Your task to perform on an android device: Search for Mexican restaurants on Maps Image 0: 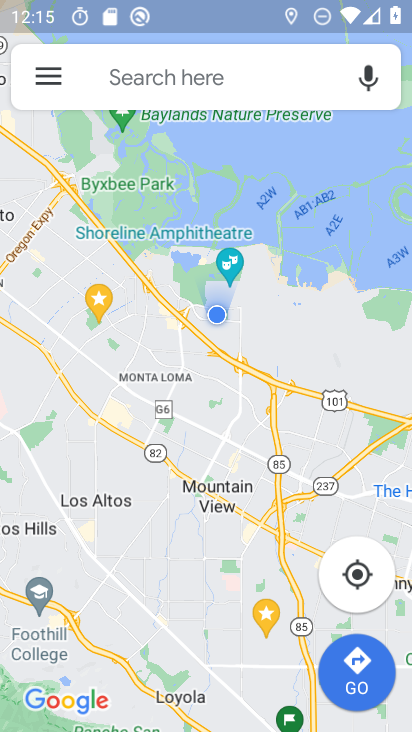
Step 0: press back button
Your task to perform on an android device: Search for Mexican restaurants on Maps Image 1: 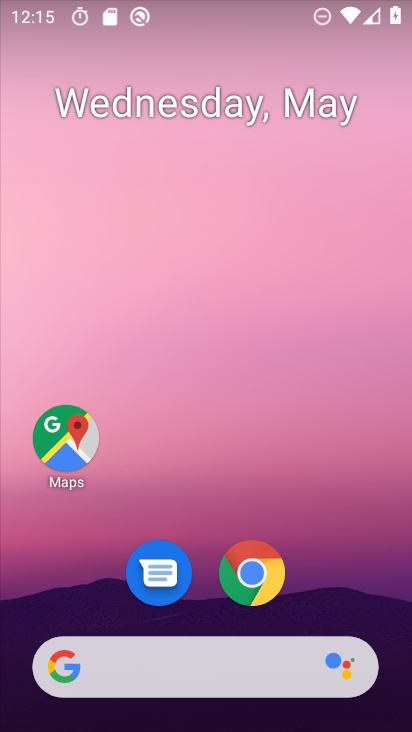
Step 1: drag from (328, 563) to (270, 32)
Your task to perform on an android device: Search for Mexican restaurants on Maps Image 2: 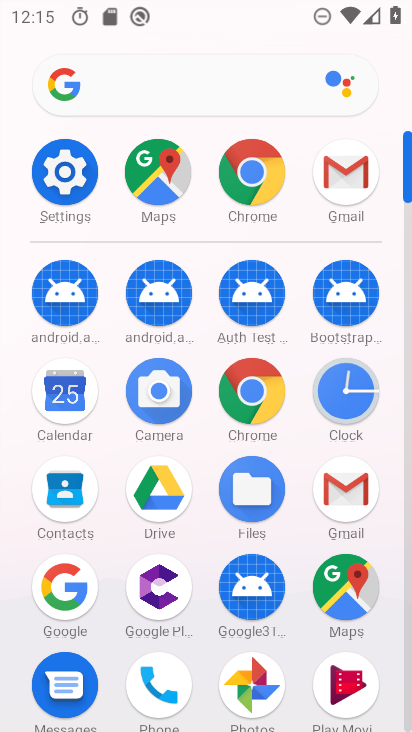
Step 2: drag from (6, 595) to (22, 237)
Your task to perform on an android device: Search for Mexican restaurants on Maps Image 3: 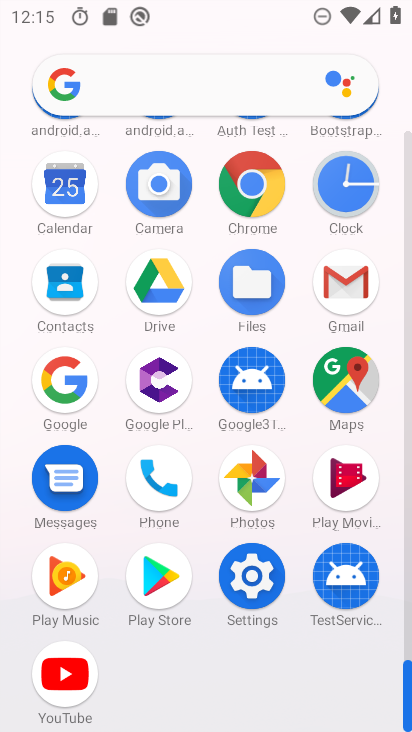
Step 3: drag from (17, 580) to (28, 212)
Your task to perform on an android device: Search for Mexican restaurants on Maps Image 4: 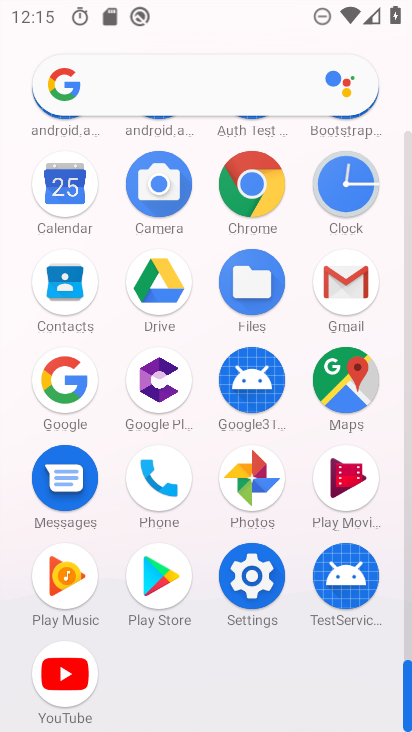
Step 4: click (345, 367)
Your task to perform on an android device: Search for Mexican restaurants on Maps Image 5: 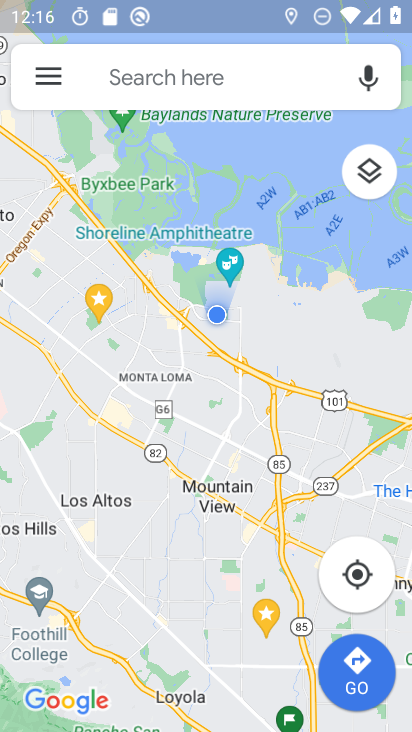
Step 5: click (235, 73)
Your task to perform on an android device: Search for Mexican restaurants on Maps Image 6: 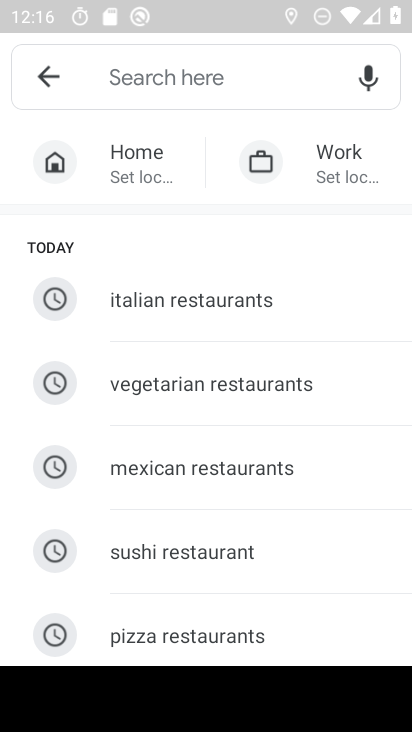
Step 6: click (215, 471)
Your task to perform on an android device: Search for Mexican restaurants on Maps Image 7: 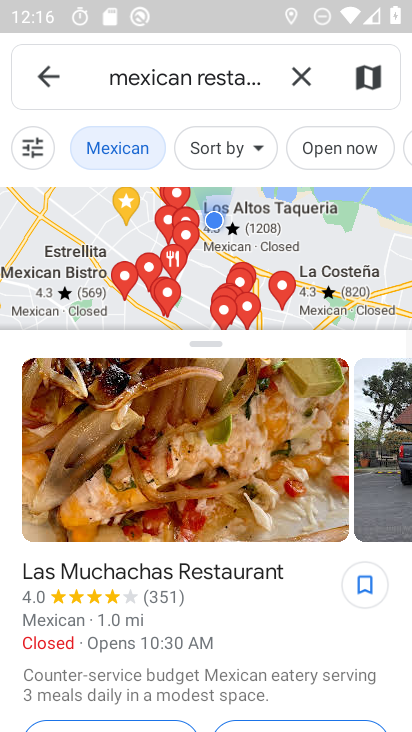
Step 7: task complete